Your task to perform on an android device: Open the web browser Image 0: 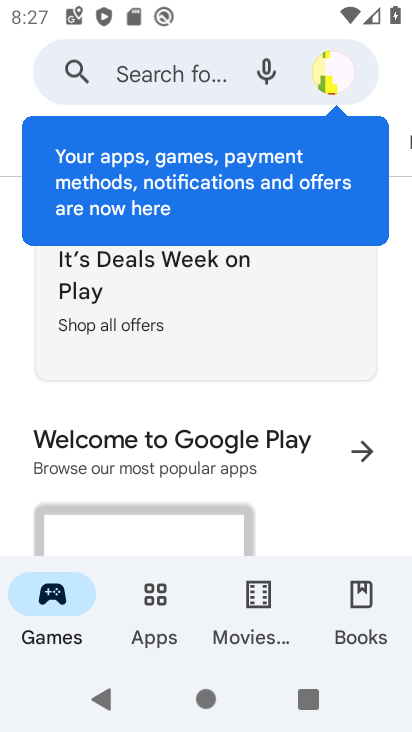
Step 0: press home button
Your task to perform on an android device: Open the web browser Image 1: 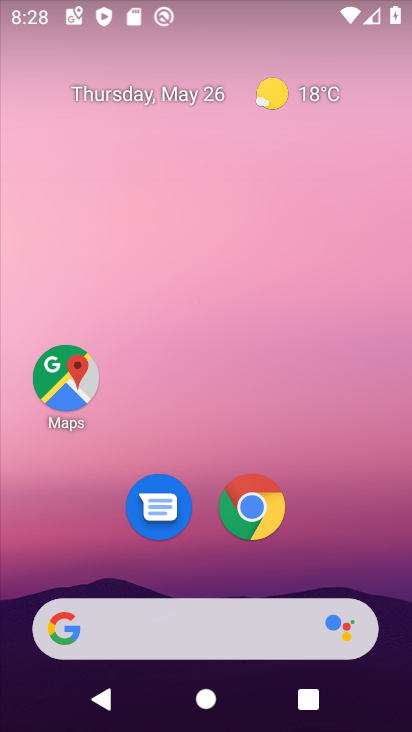
Step 1: drag from (255, 657) to (176, 150)
Your task to perform on an android device: Open the web browser Image 2: 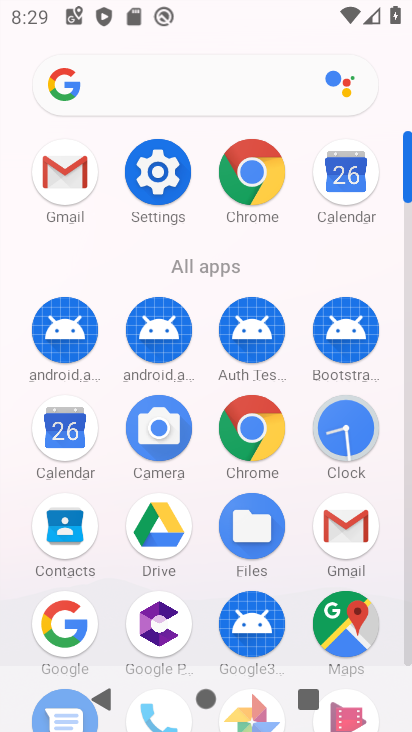
Step 2: click (240, 187)
Your task to perform on an android device: Open the web browser Image 3: 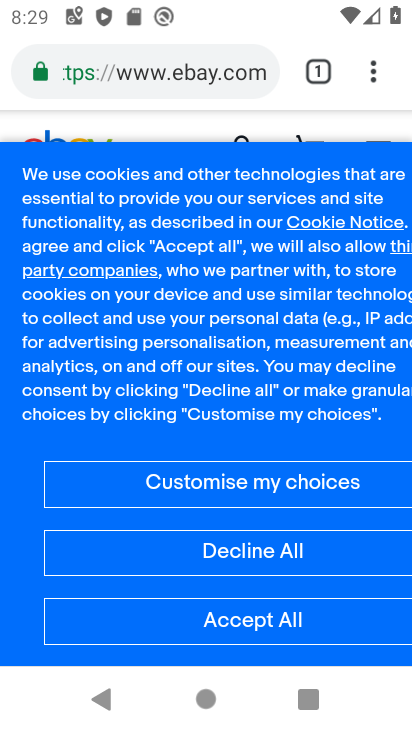
Step 3: click (201, 84)
Your task to perform on an android device: Open the web browser Image 4: 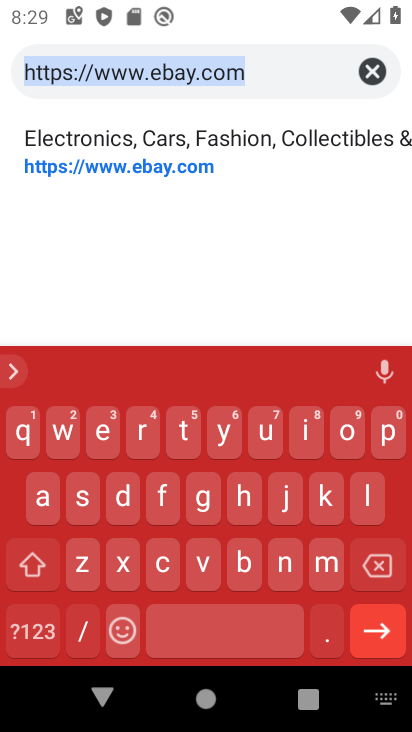
Step 4: click (362, 72)
Your task to perform on an android device: Open the web browser Image 5: 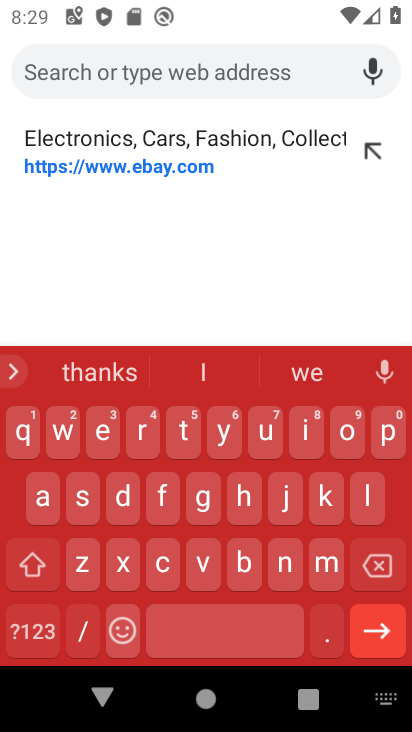
Step 5: task complete